Your task to perform on an android device: Go to Wikipedia Image 0: 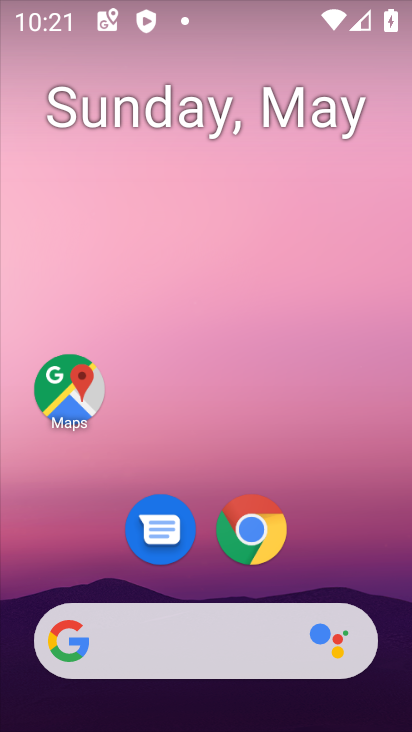
Step 0: click (247, 523)
Your task to perform on an android device: Go to Wikipedia Image 1: 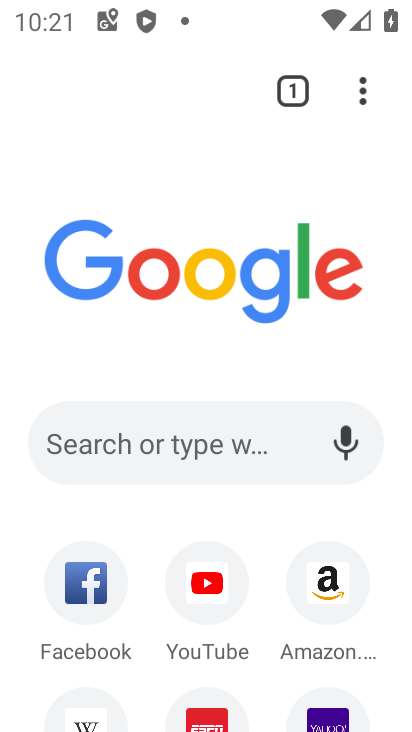
Step 1: click (96, 695)
Your task to perform on an android device: Go to Wikipedia Image 2: 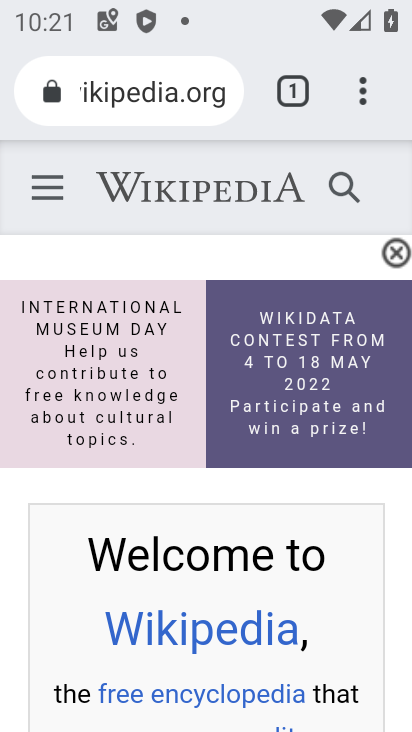
Step 2: task complete